Your task to perform on an android device: turn on the 24-hour format for clock Image 0: 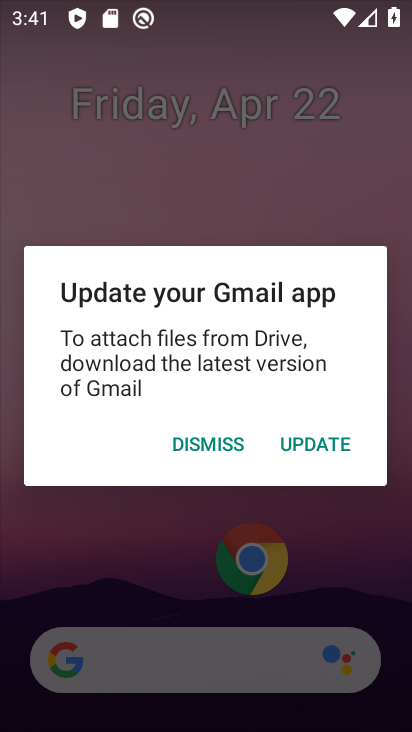
Step 0: click (206, 443)
Your task to perform on an android device: turn on the 24-hour format for clock Image 1: 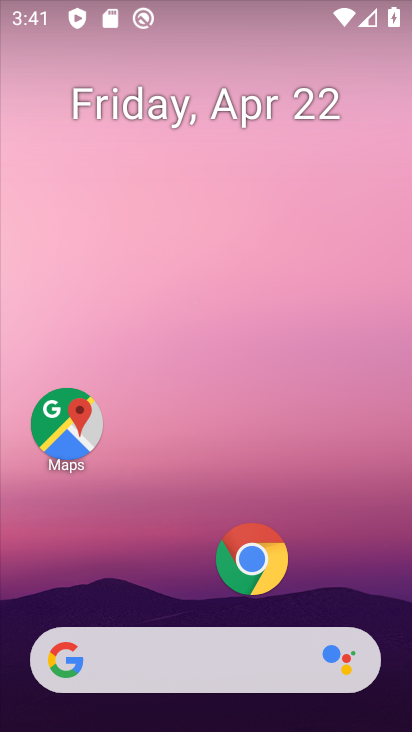
Step 1: drag from (159, 554) to (256, 133)
Your task to perform on an android device: turn on the 24-hour format for clock Image 2: 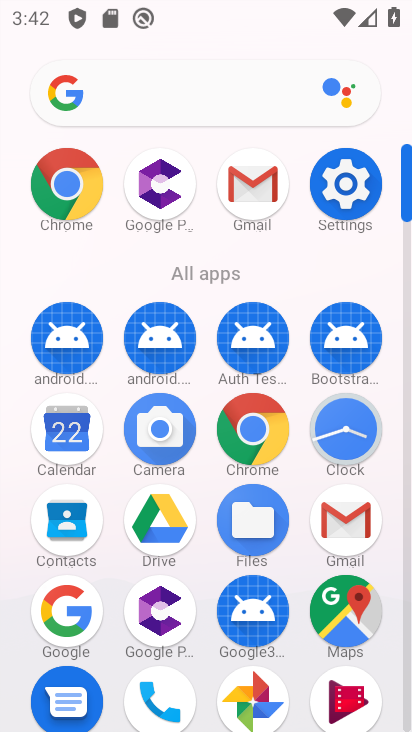
Step 2: click (359, 189)
Your task to perform on an android device: turn on the 24-hour format for clock Image 3: 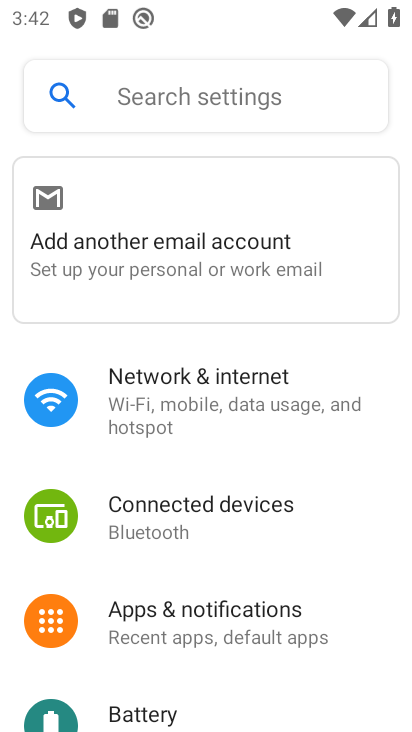
Step 3: drag from (221, 510) to (300, 20)
Your task to perform on an android device: turn on the 24-hour format for clock Image 4: 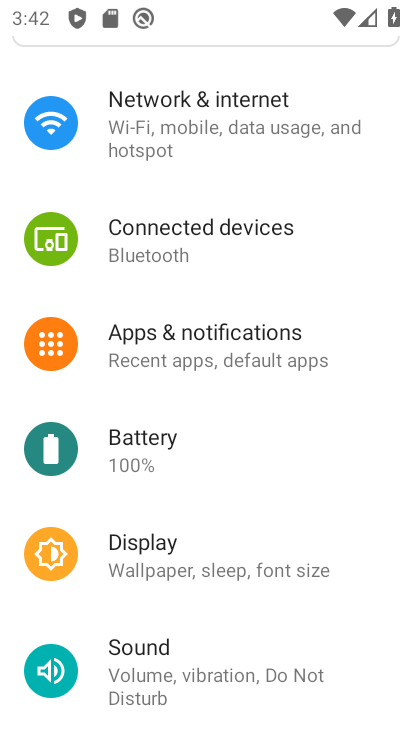
Step 4: drag from (182, 548) to (251, 90)
Your task to perform on an android device: turn on the 24-hour format for clock Image 5: 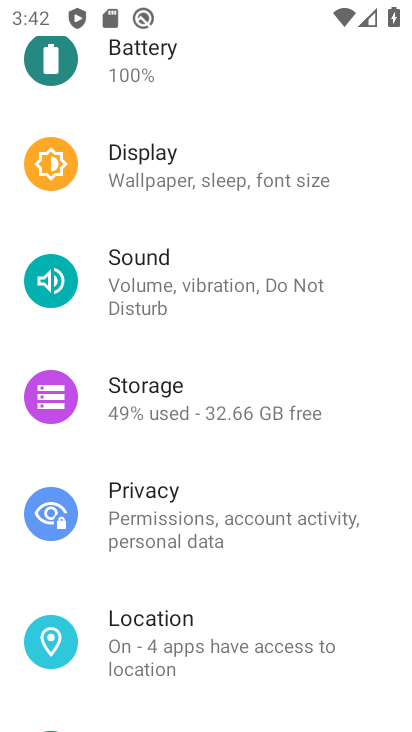
Step 5: drag from (184, 484) to (297, 114)
Your task to perform on an android device: turn on the 24-hour format for clock Image 6: 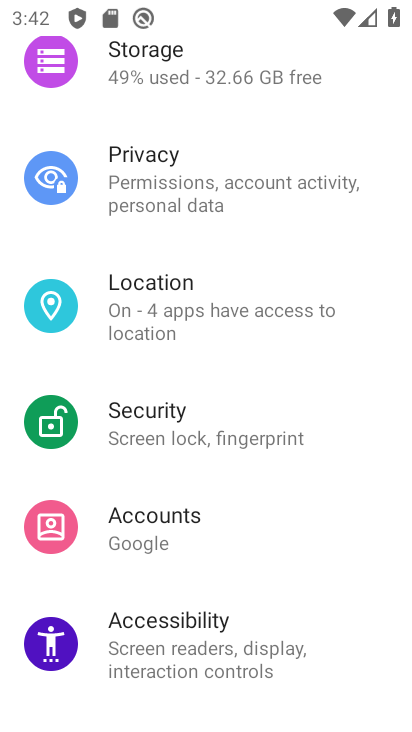
Step 6: drag from (218, 470) to (318, 10)
Your task to perform on an android device: turn on the 24-hour format for clock Image 7: 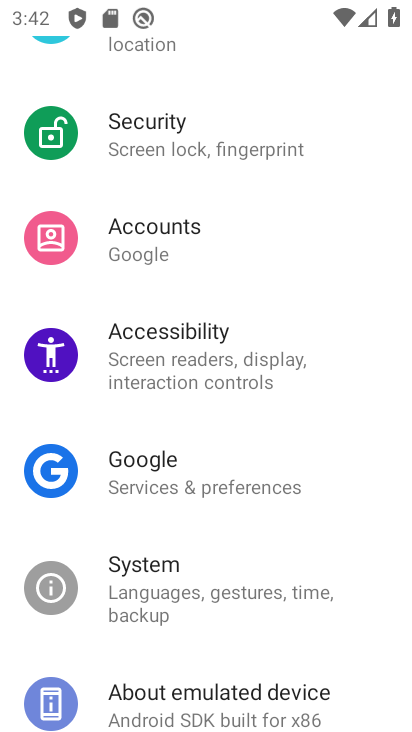
Step 7: drag from (209, 586) to (266, 293)
Your task to perform on an android device: turn on the 24-hour format for clock Image 8: 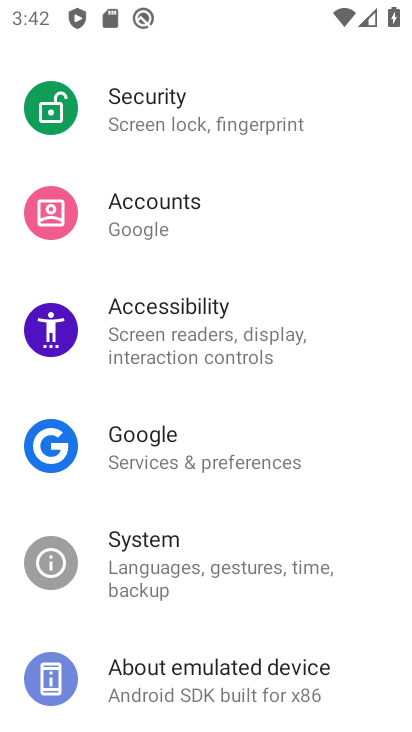
Step 8: click (204, 571)
Your task to perform on an android device: turn on the 24-hour format for clock Image 9: 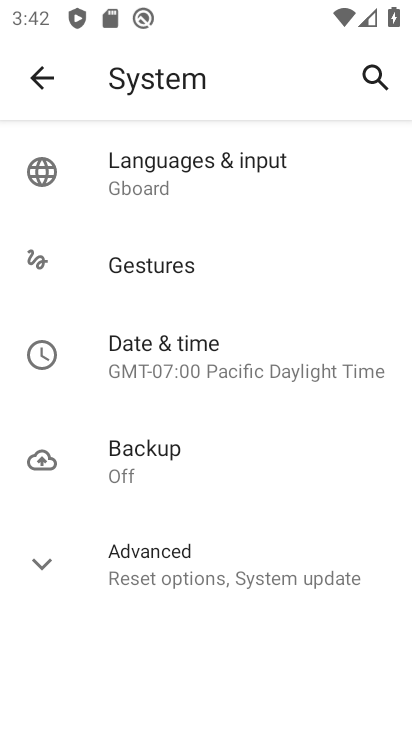
Step 9: click (177, 360)
Your task to perform on an android device: turn on the 24-hour format for clock Image 10: 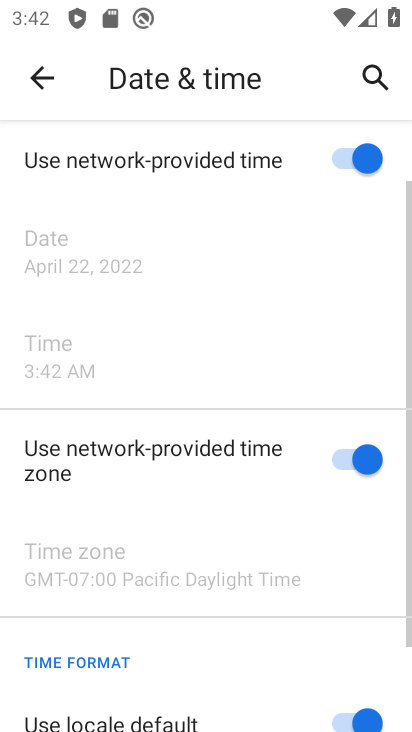
Step 10: drag from (161, 508) to (208, 232)
Your task to perform on an android device: turn on the 24-hour format for clock Image 11: 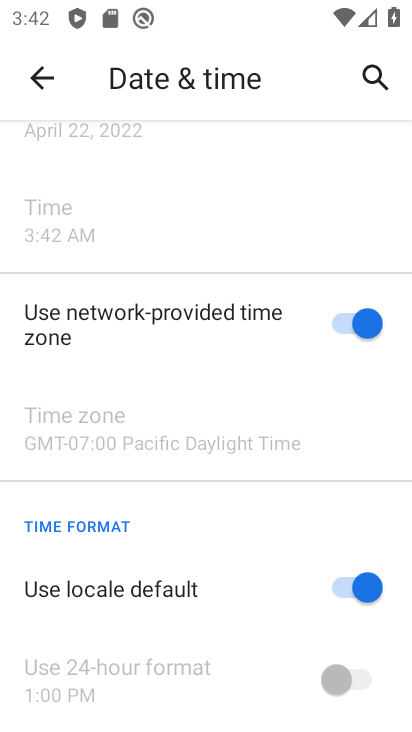
Step 11: click (331, 581)
Your task to perform on an android device: turn on the 24-hour format for clock Image 12: 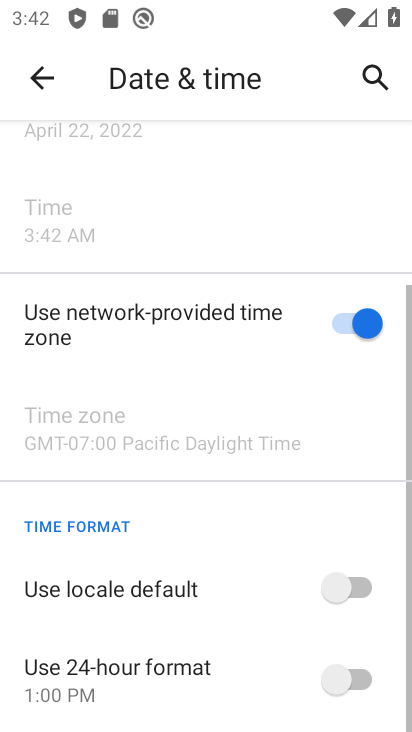
Step 12: click (365, 673)
Your task to perform on an android device: turn on the 24-hour format for clock Image 13: 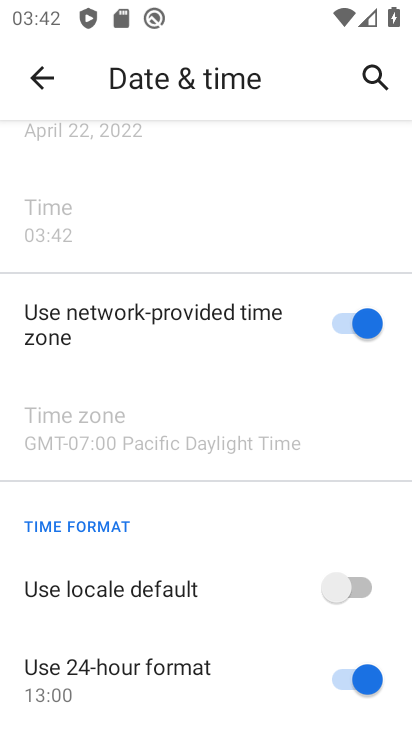
Step 13: task complete